Your task to perform on an android device: uninstall "Spotify" Image 0: 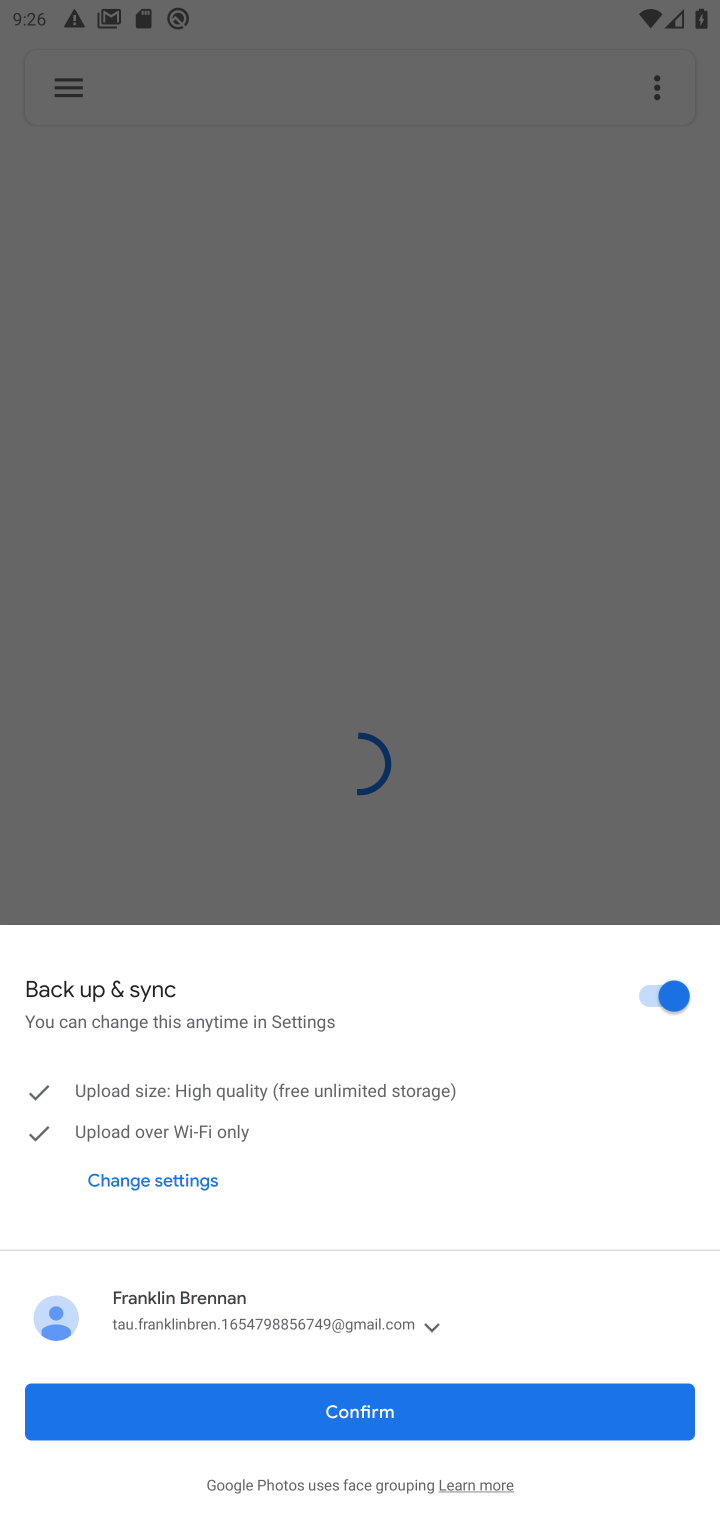
Step 0: press home button
Your task to perform on an android device: uninstall "Spotify" Image 1: 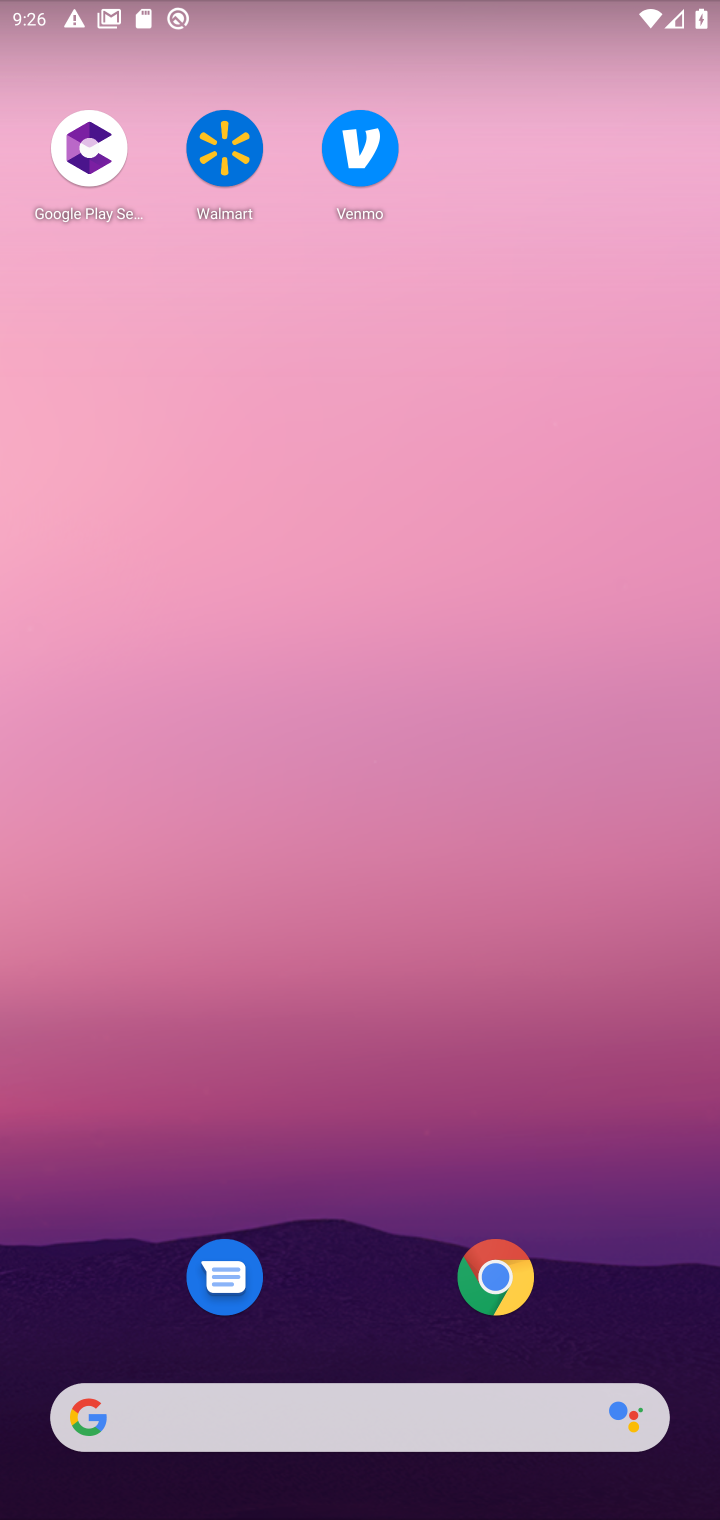
Step 1: drag from (371, 1340) to (147, 72)
Your task to perform on an android device: uninstall "Spotify" Image 2: 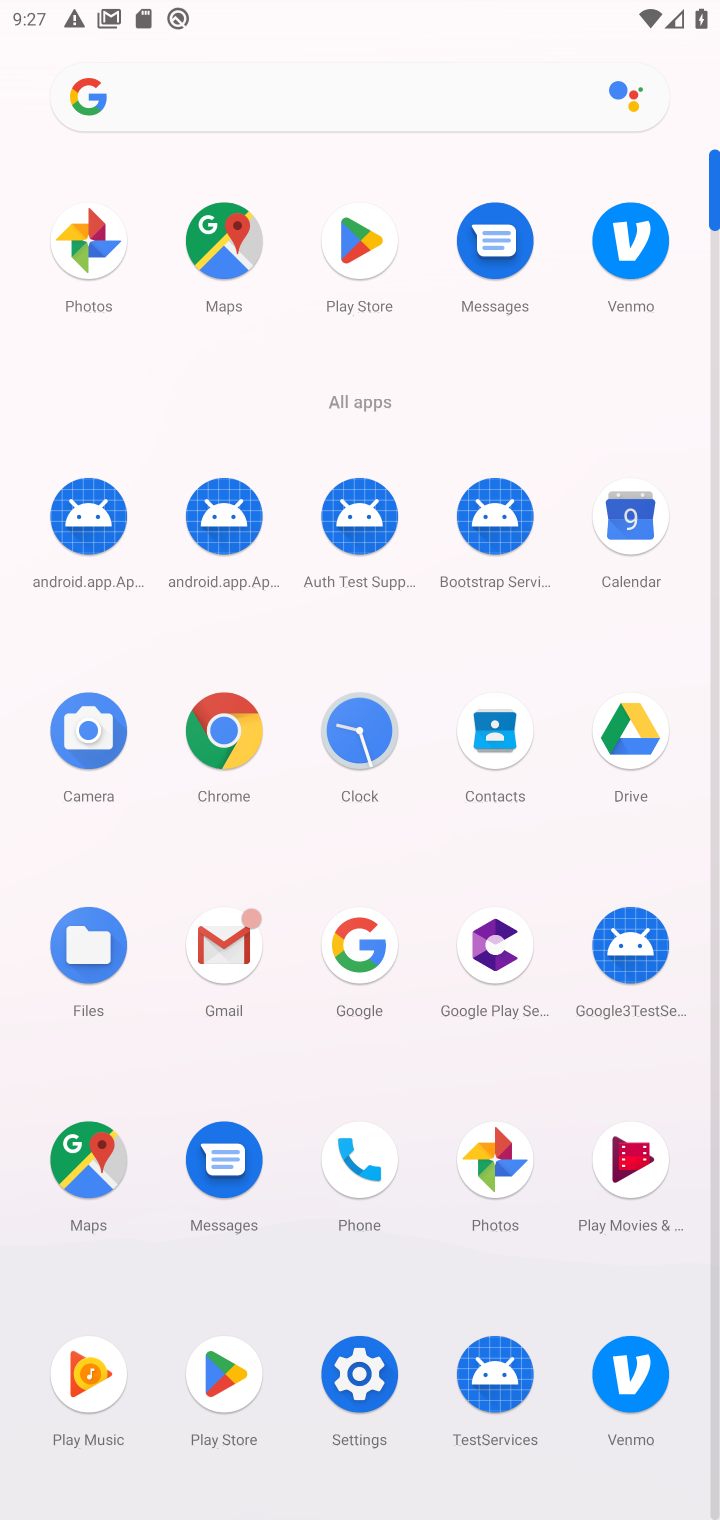
Step 2: click (235, 1371)
Your task to perform on an android device: uninstall "Spotify" Image 3: 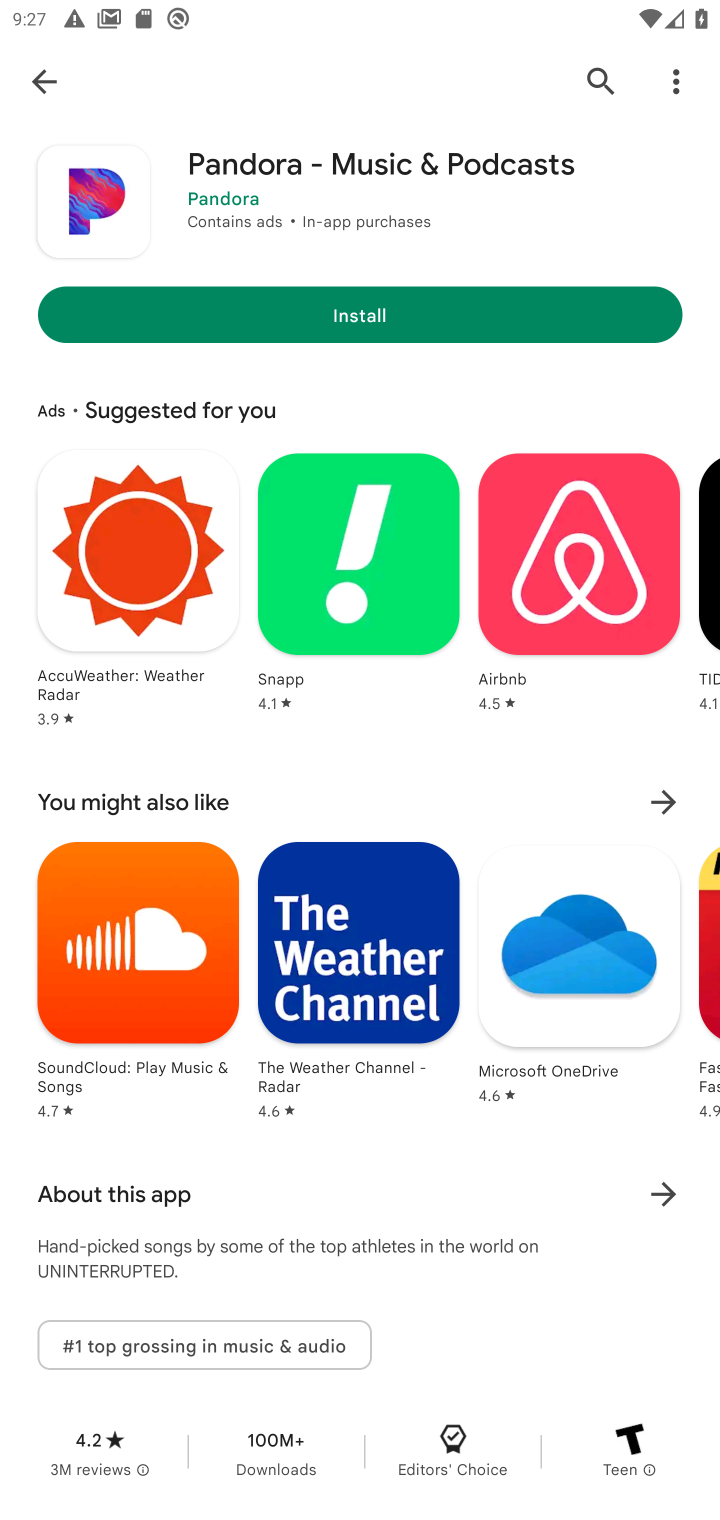
Step 3: click (22, 60)
Your task to perform on an android device: uninstall "Spotify" Image 4: 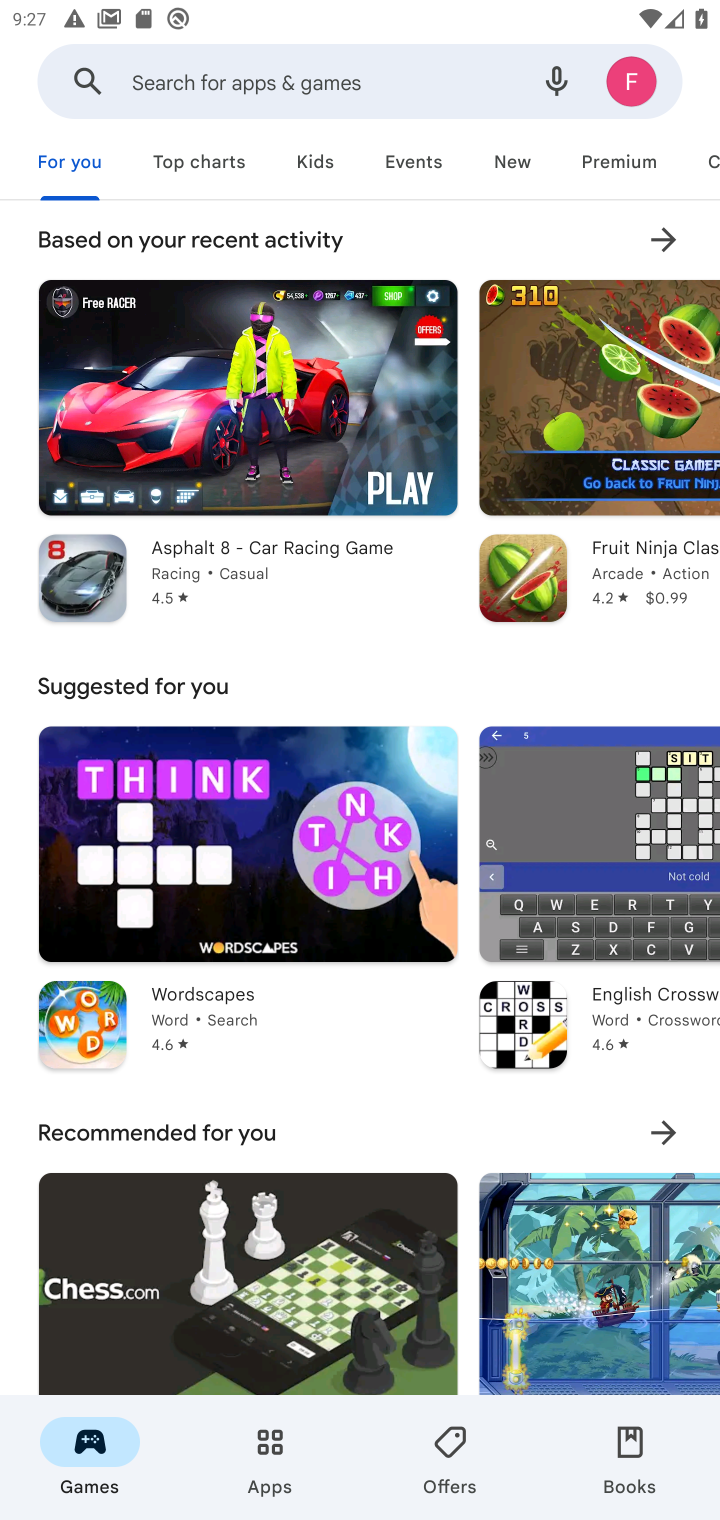
Step 4: click (194, 91)
Your task to perform on an android device: uninstall "Spotify" Image 5: 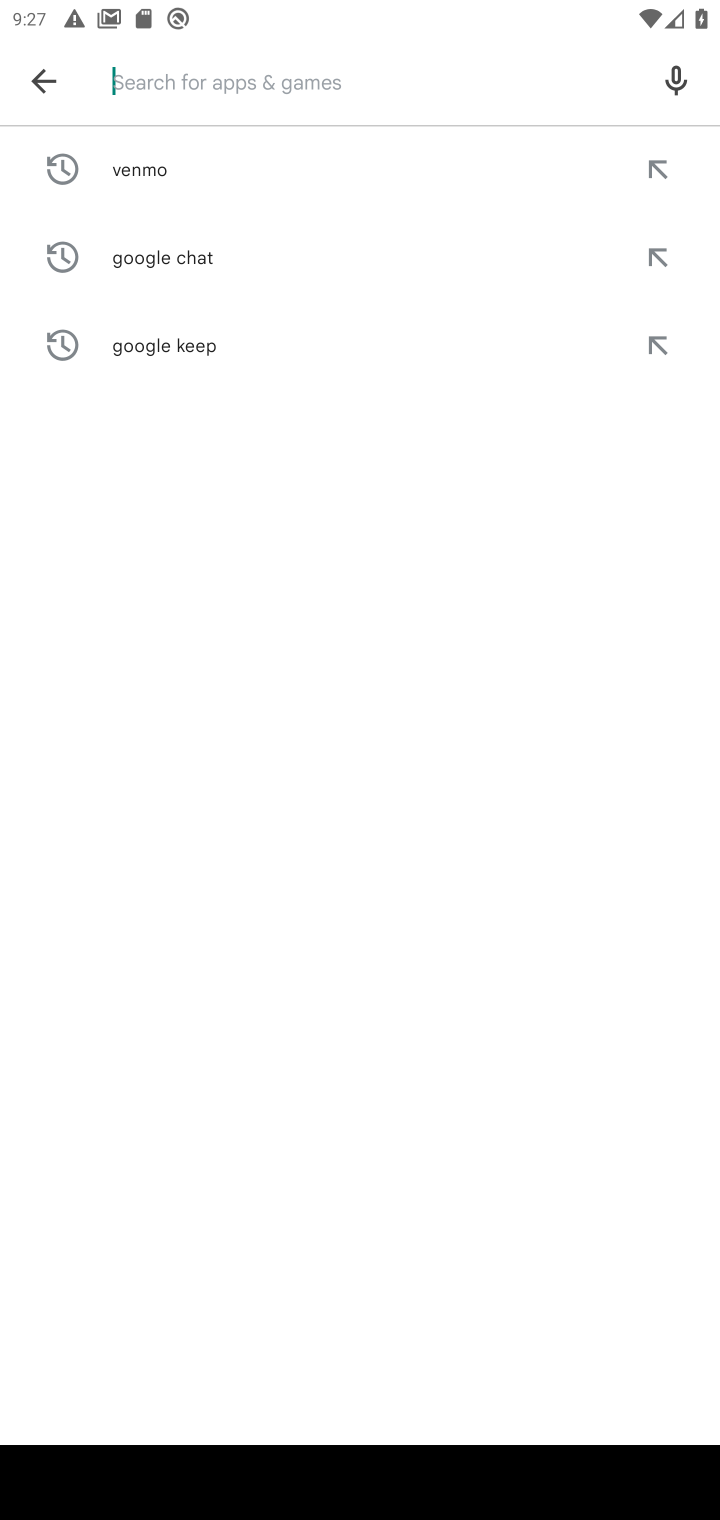
Step 5: type "Spotify"
Your task to perform on an android device: uninstall "Spotify" Image 6: 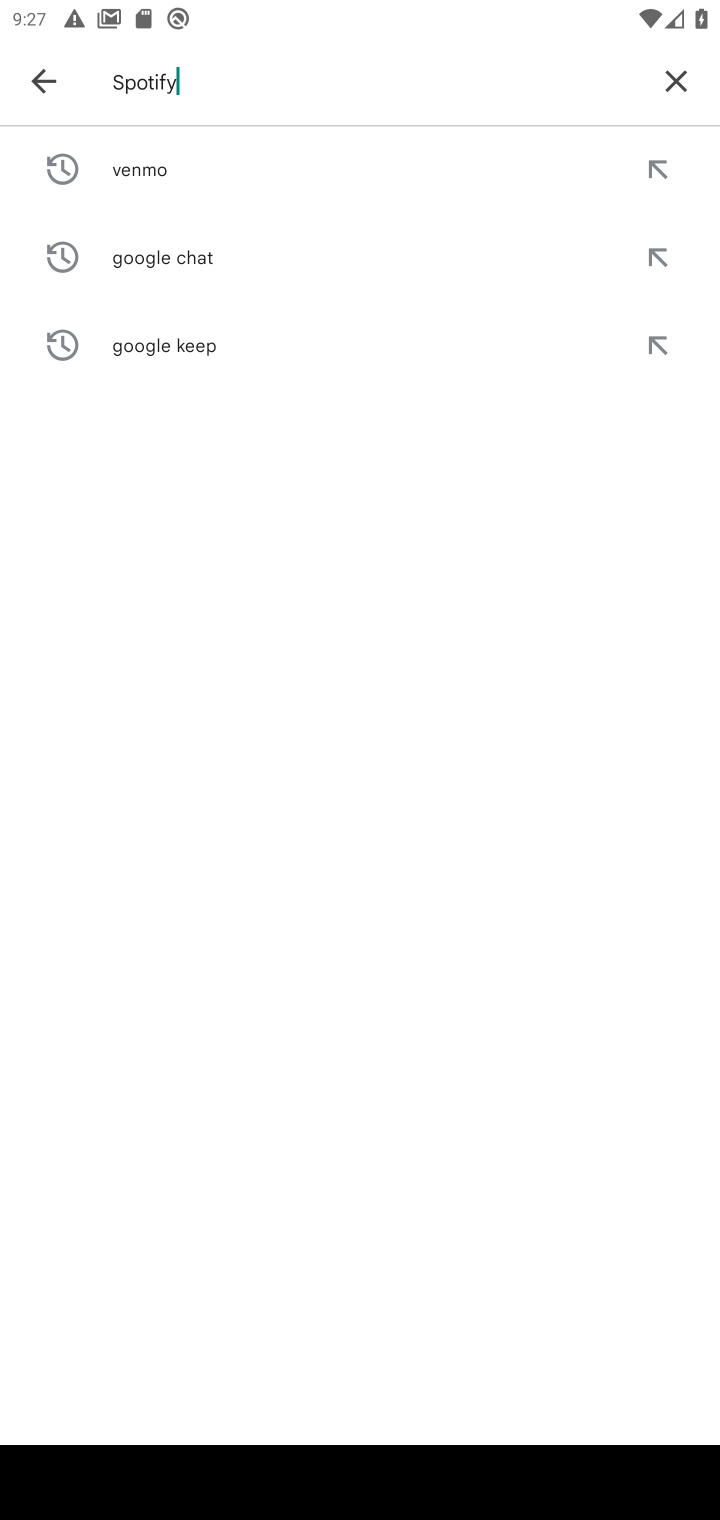
Step 6: type ""
Your task to perform on an android device: uninstall "Spotify" Image 7: 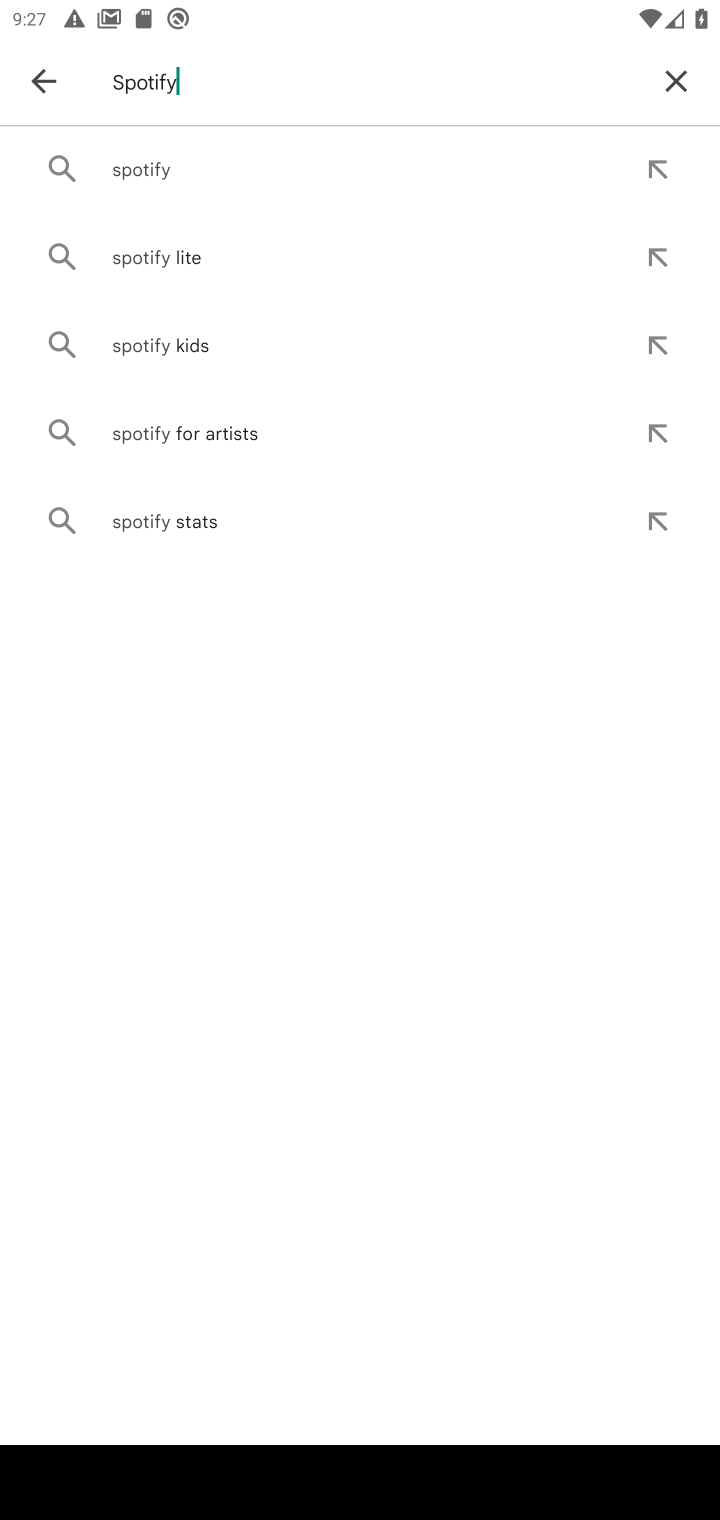
Step 7: click (228, 155)
Your task to perform on an android device: uninstall "Spotify" Image 8: 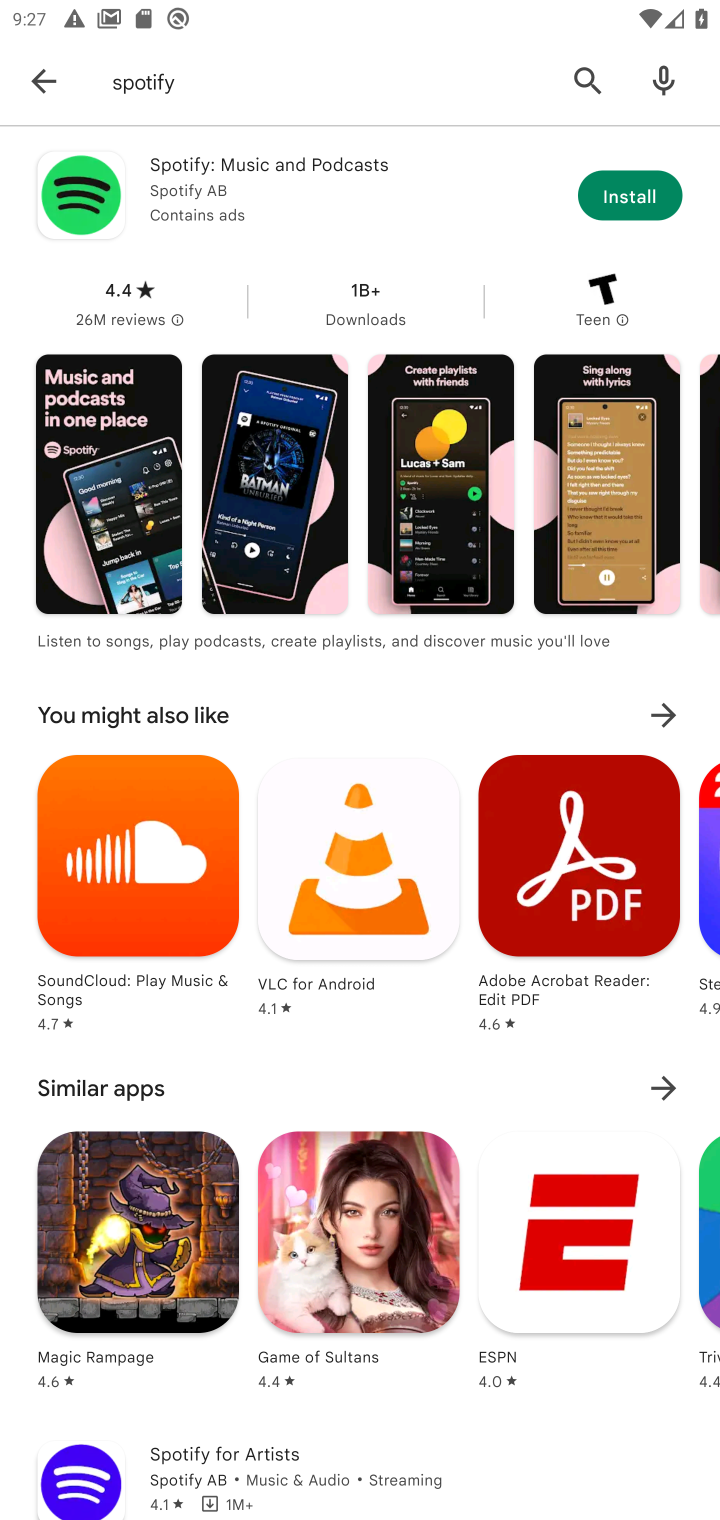
Step 8: click (365, 183)
Your task to perform on an android device: uninstall "Spotify" Image 9: 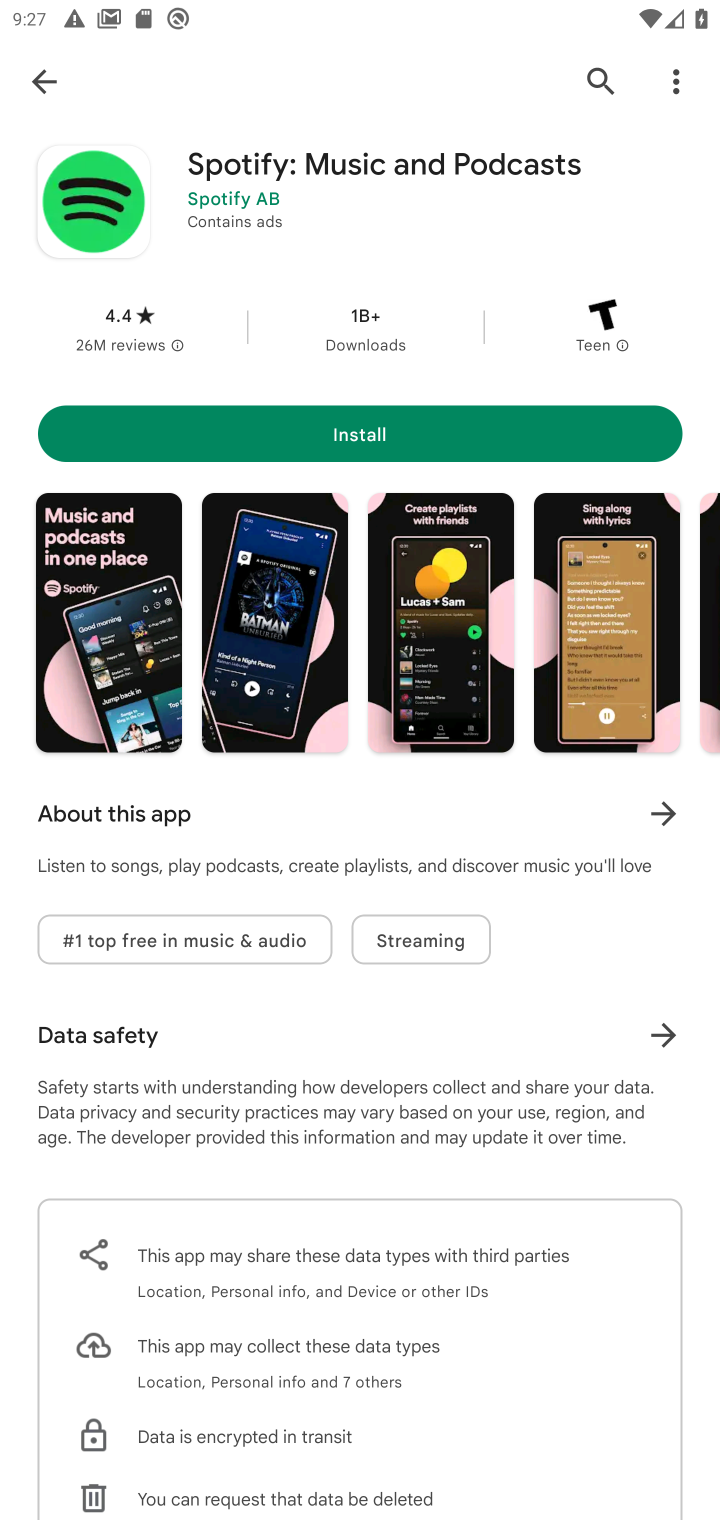
Step 9: task complete